Your task to perform on an android device: toggle javascript in the chrome app Image 0: 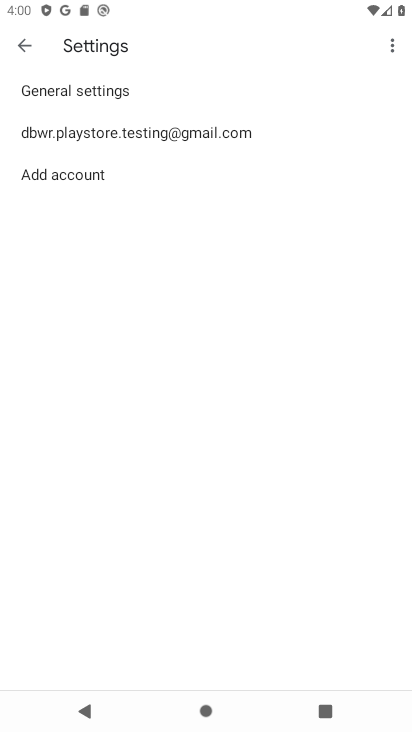
Step 0: press home button
Your task to perform on an android device: toggle javascript in the chrome app Image 1: 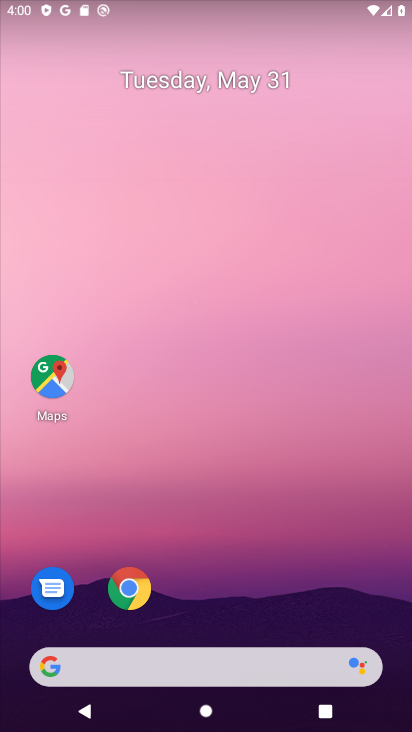
Step 1: click (127, 597)
Your task to perform on an android device: toggle javascript in the chrome app Image 2: 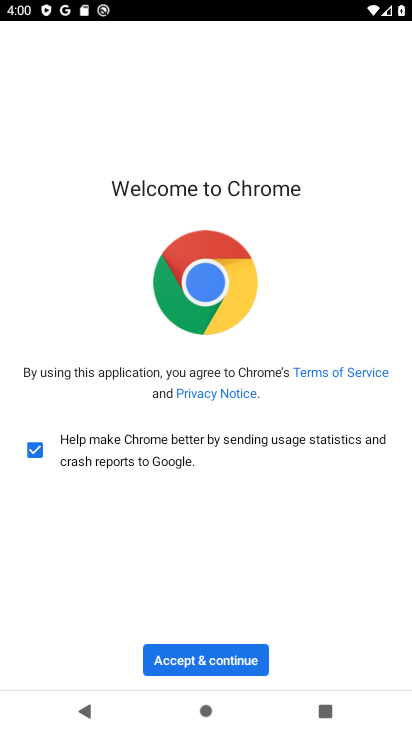
Step 2: click (192, 662)
Your task to perform on an android device: toggle javascript in the chrome app Image 3: 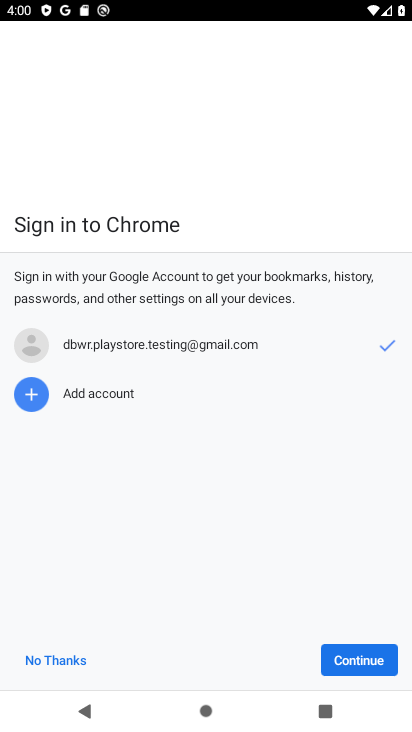
Step 3: click (328, 666)
Your task to perform on an android device: toggle javascript in the chrome app Image 4: 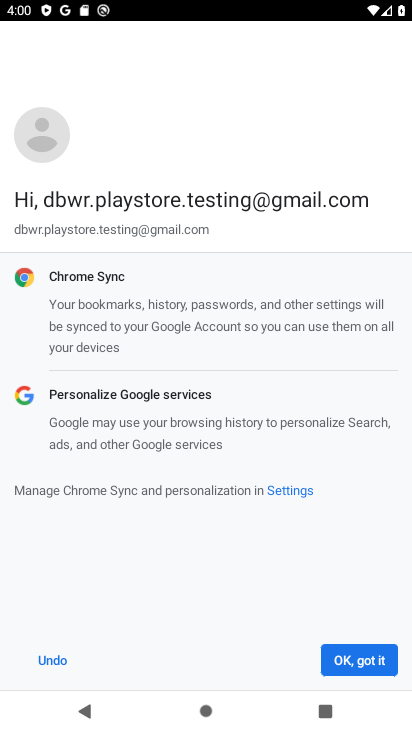
Step 4: click (328, 666)
Your task to perform on an android device: toggle javascript in the chrome app Image 5: 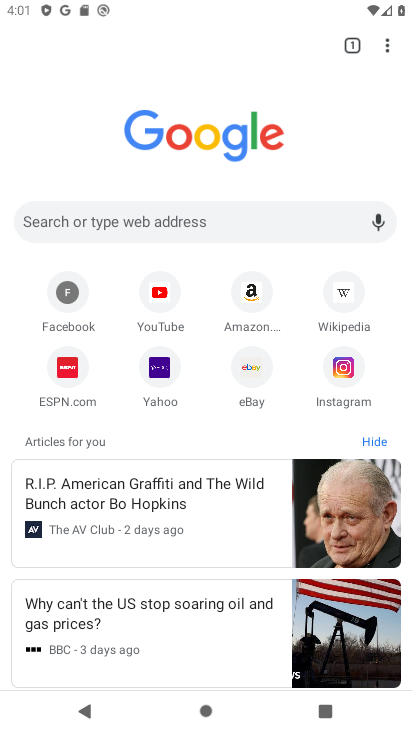
Step 5: click (389, 49)
Your task to perform on an android device: toggle javascript in the chrome app Image 6: 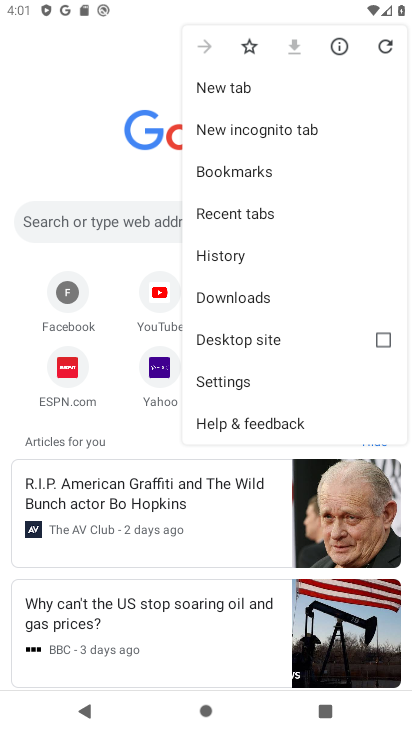
Step 6: click (227, 374)
Your task to perform on an android device: toggle javascript in the chrome app Image 7: 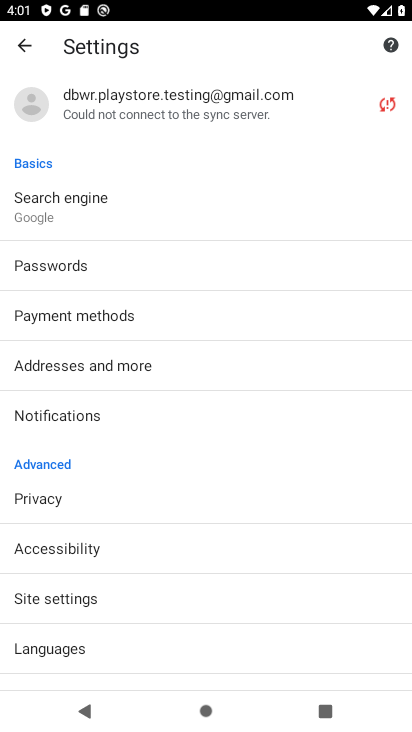
Step 7: click (101, 608)
Your task to perform on an android device: toggle javascript in the chrome app Image 8: 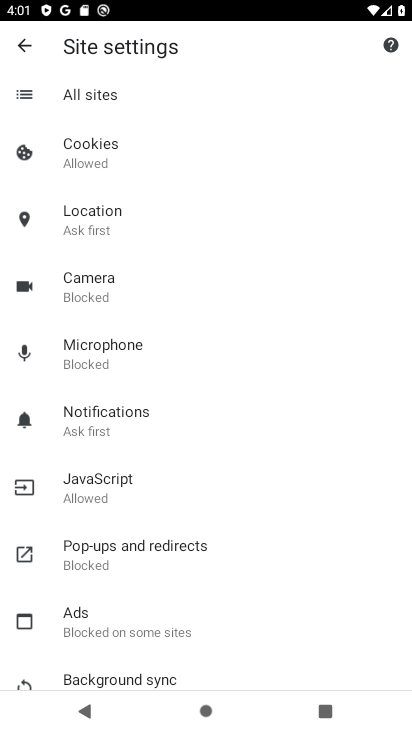
Step 8: click (96, 495)
Your task to perform on an android device: toggle javascript in the chrome app Image 9: 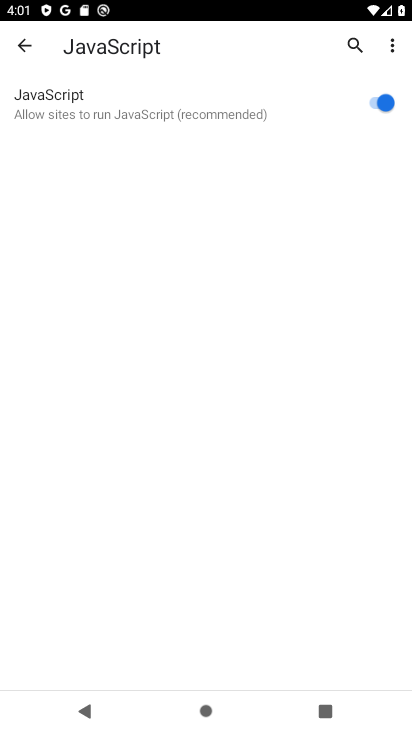
Step 9: click (383, 109)
Your task to perform on an android device: toggle javascript in the chrome app Image 10: 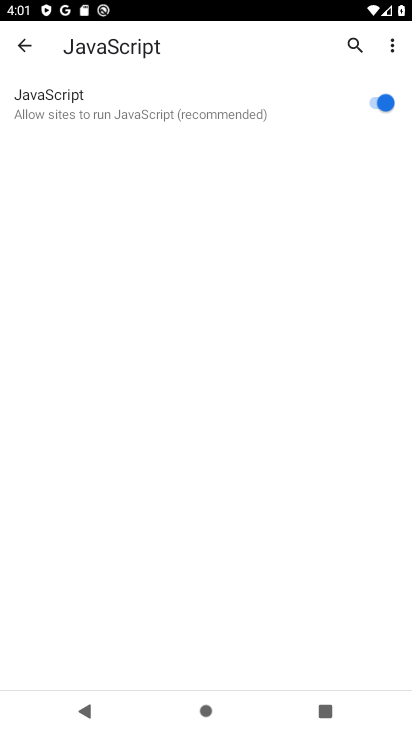
Step 10: click (383, 109)
Your task to perform on an android device: toggle javascript in the chrome app Image 11: 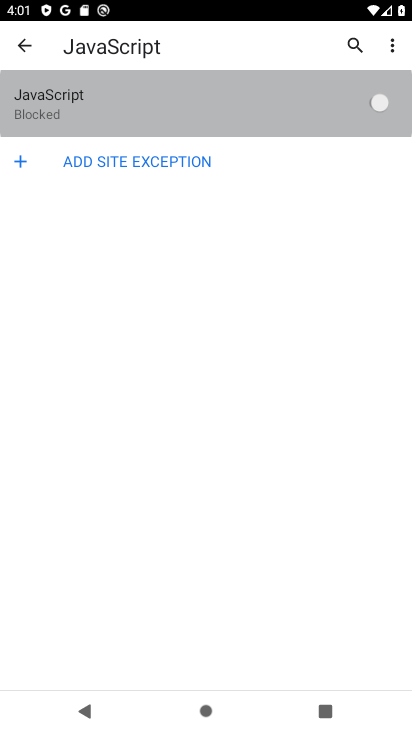
Step 11: click (383, 109)
Your task to perform on an android device: toggle javascript in the chrome app Image 12: 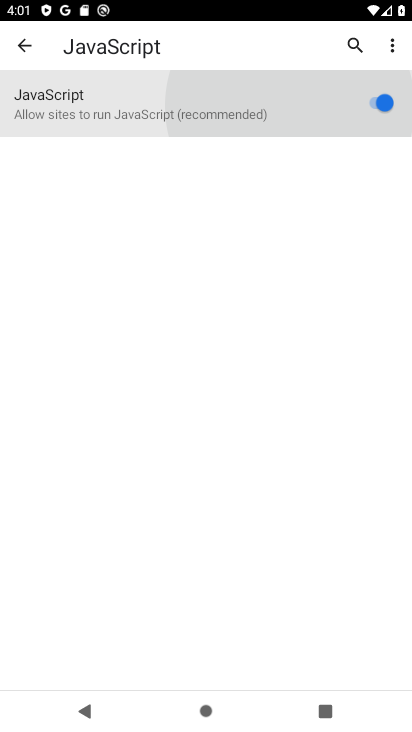
Step 12: click (383, 109)
Your task to perform on an android device: toggle javascript in the chrome app Image 13: 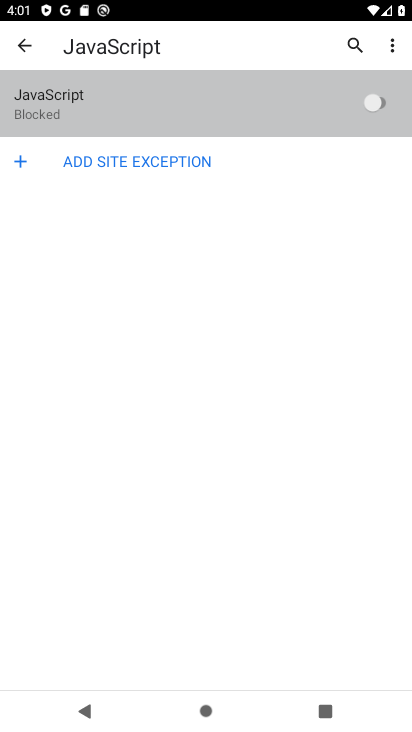
Step 13: click (383, 109)
Your task to perform on an android device: toggle javascript in the chrome app Image 14: 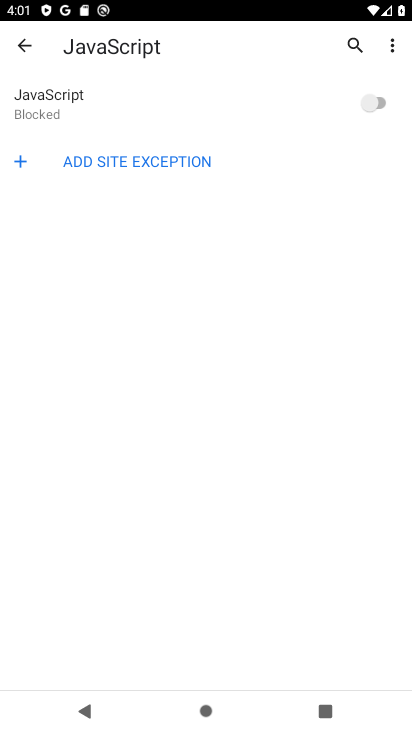
Step 14: task complete